Your task to perform on an android device: toggle notification dots Image 0: 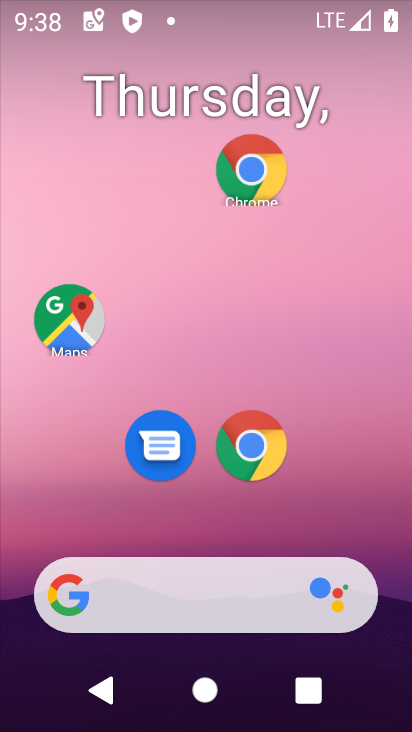
Step 0: drag from (201, 547) to (353, 432)
Your task to perform on an android device: toggle notification dots Image 1: 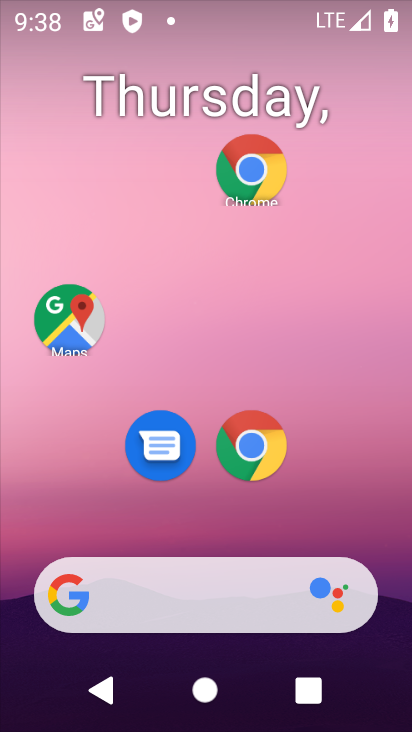
Step 1: drag from (219, 534) to (347, 31)
Your task to perform on an android device: toggle notification dots Image 2: 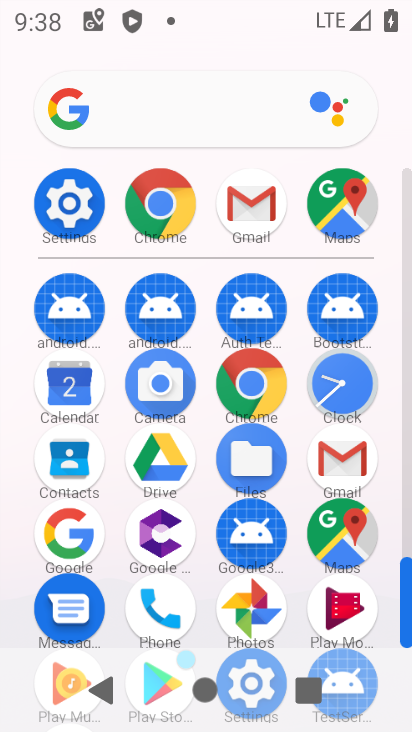
Step 2: click (54, 216)
Your task to perform on an android device: toggle notification dots Image 3: 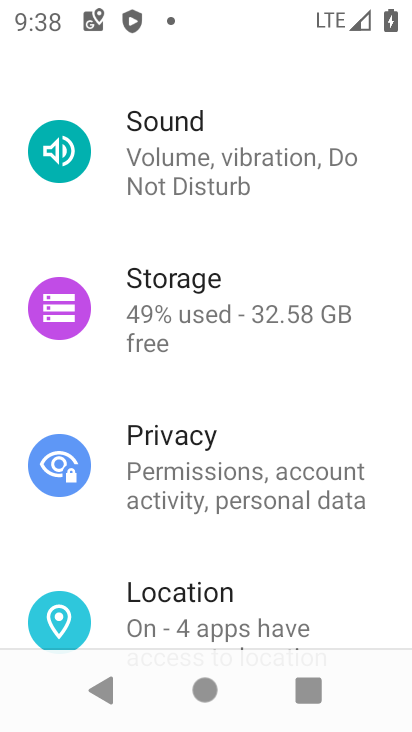
Step 3: drag from (203, 536) to (148, 76)
Your task to perform on an android device: toggle notification dots Image 4: 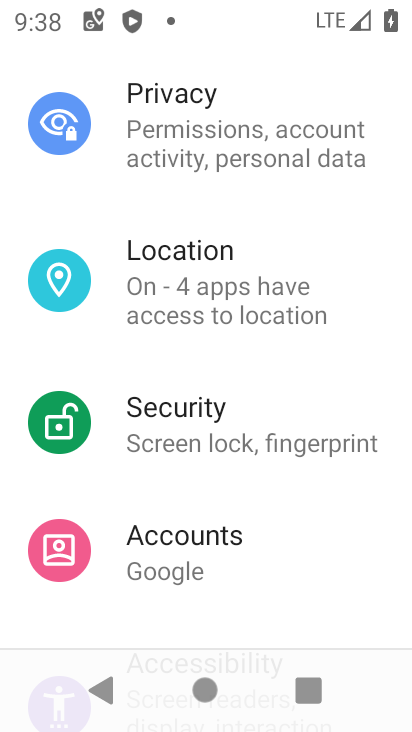
Step 4: drag from (225, 439) to (200, 12)
Your task to perform on an android device: toggle notification dots Image 5: 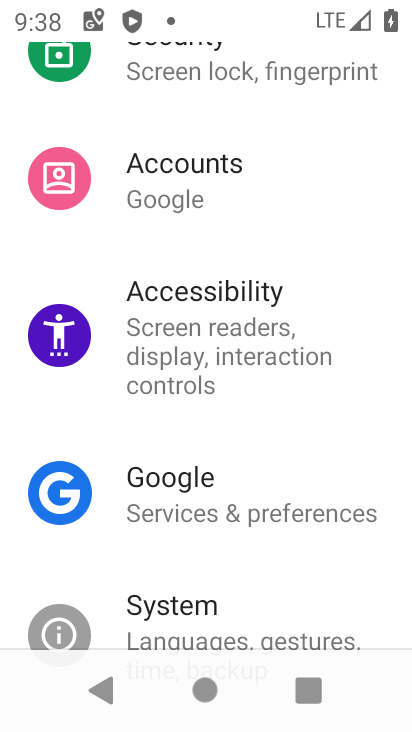
Step 5: drag from (218, 182) to (199, 35)
Your task to perform on an android device: toggle notification dots Image 6: 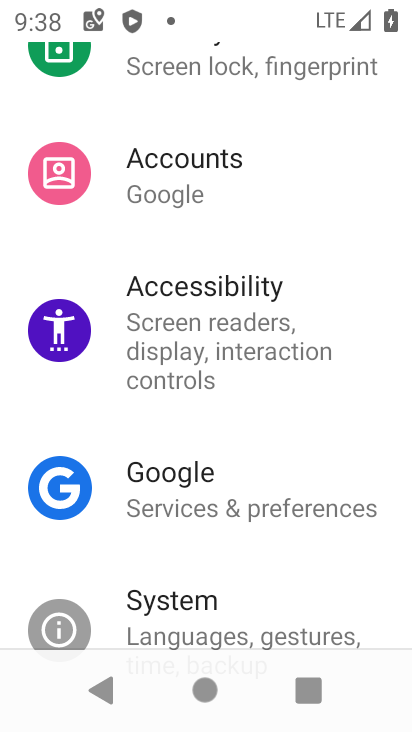
Step 6: drag from (214, 475) to (191, 4)
Your task to perform on an android device: toggle notification dots Image 7: 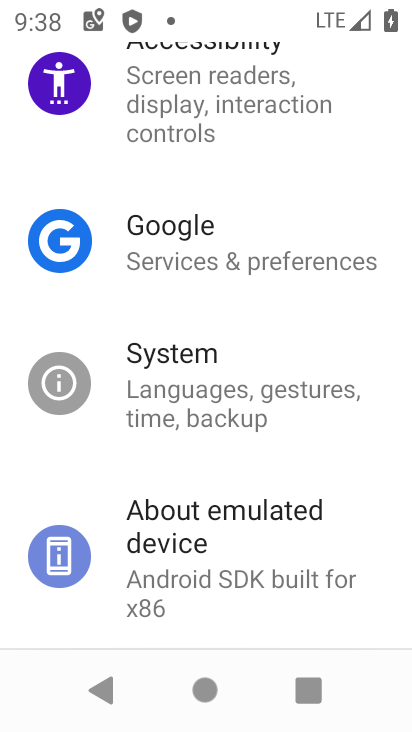
Step 7: drag from (210, 176) to (217, 700)
Your task to perform on an android device: toggle notification dots Image 8: 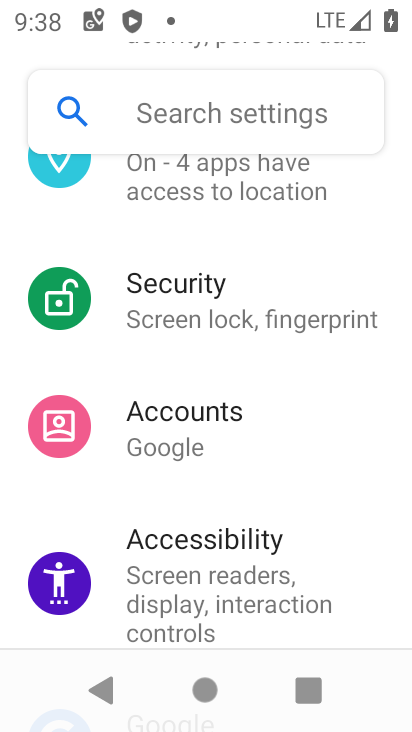
Step 8: drag from (223, 230) to (222, 728)
Your task to perform on an android device: toggle notification dots Image 9: 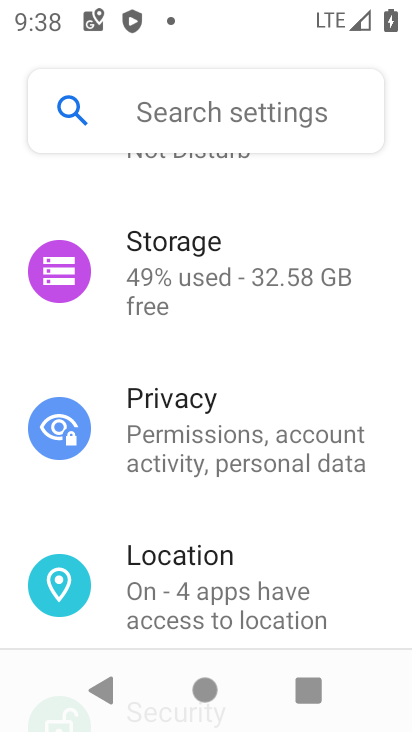
Step 9: drag from (194, 272) to (193, 708)
Your task to perform on an android device: toggle notification dots Image 10: 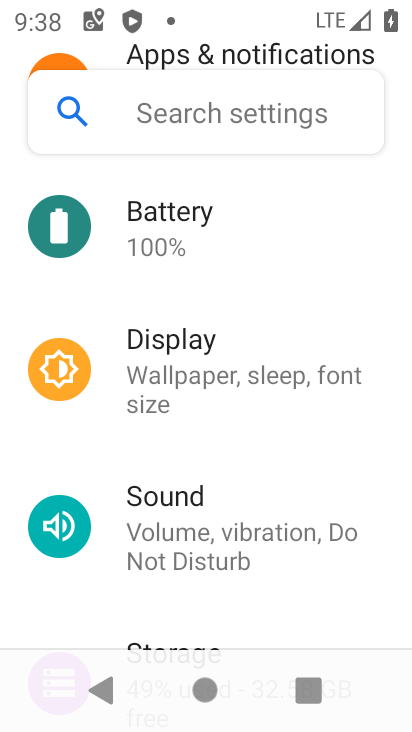
Step 10: drag from (225, 199) to (215, 606)
Your task to perform on an android device: toggle notification dots Image 11: 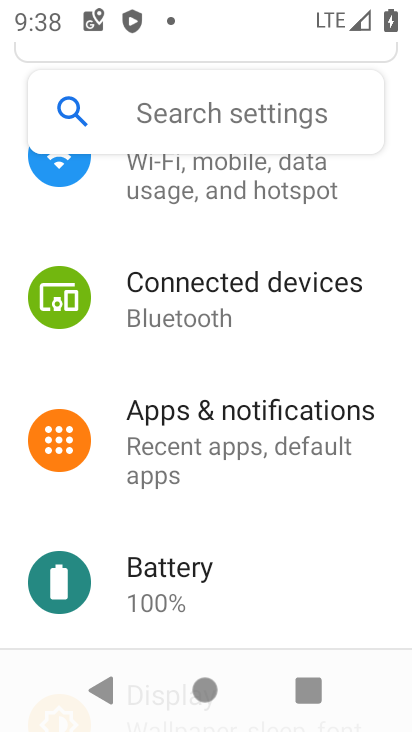
Step 11: click (233, 419)
Your task to perform on an android device: toggle notification dots Image 12: 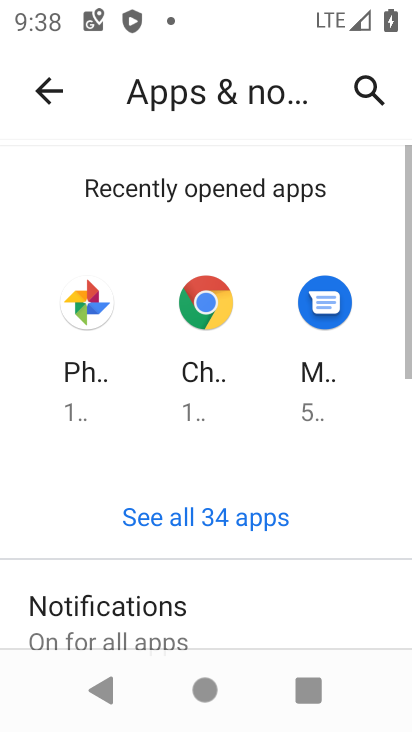
Step 12: click (183, 592)
Your task to perform on an android device: toggle notification dots Image 13: 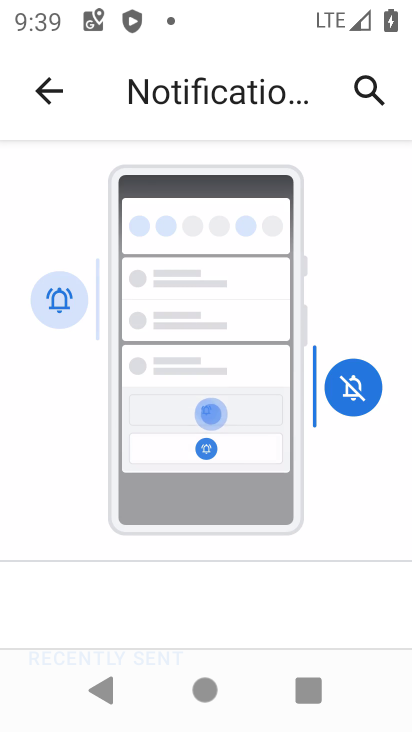
Step 13: drag from (219, 557) to (330, 4)
Your task to perform on an android device: toggle notification dots Image 14: 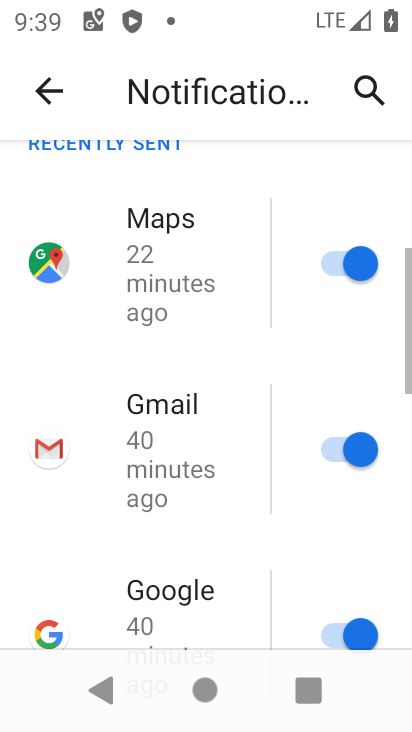
Step 14: drag from (139, 541) to (122, 107)
Your task to perform on an android device: toggle notification dots Image 15: 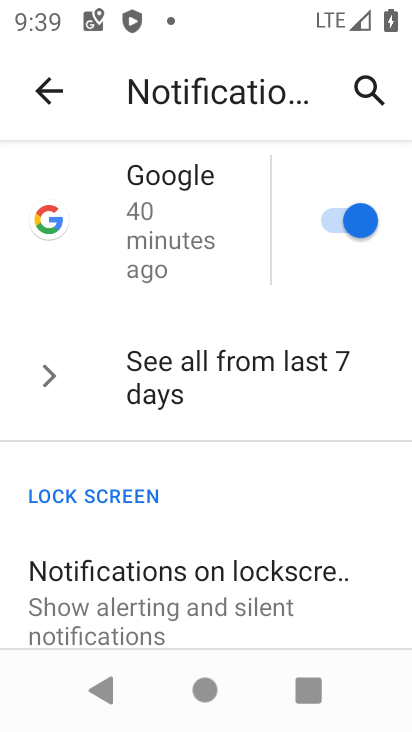
Step 15: drag from (224, 560) to (181, 33)
Your task to perform on an android device: toggle notification dots Image 16: 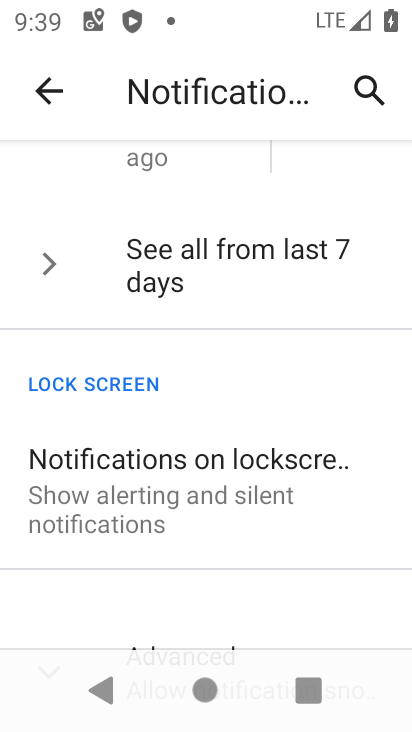
Step 16: drag from (214, 519) to (210, 71)
Your task to perform on an android device: toggle notification dots Image 17: 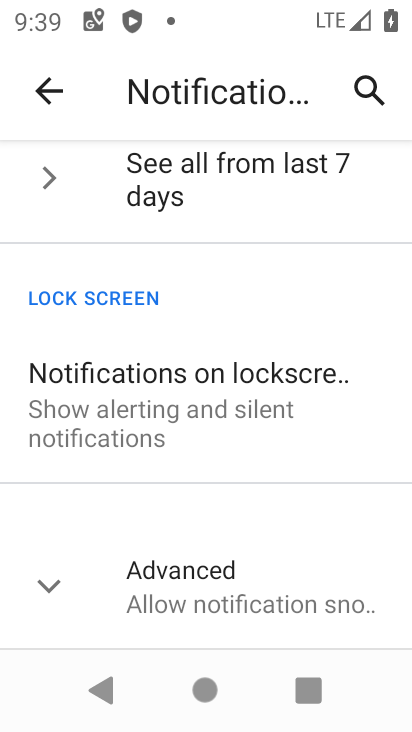
Step 17: click (206, 595)
Your task to perform on an android device: toggle notification dots Image 18: 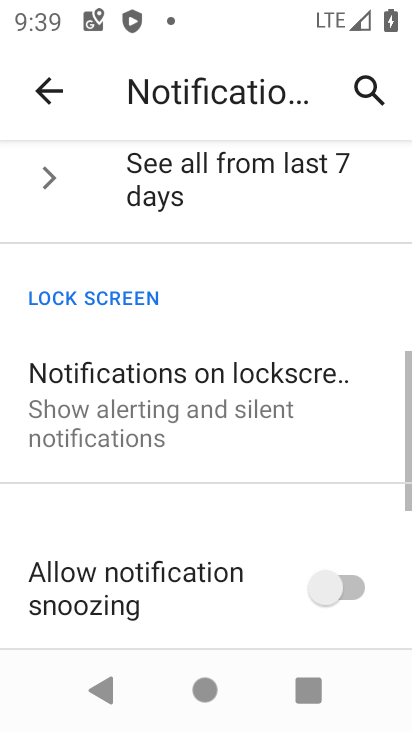
Step 18: drag from (206, 595) to (202, 179)
Your task to perform on an android device: toggle notification dots Image 19: 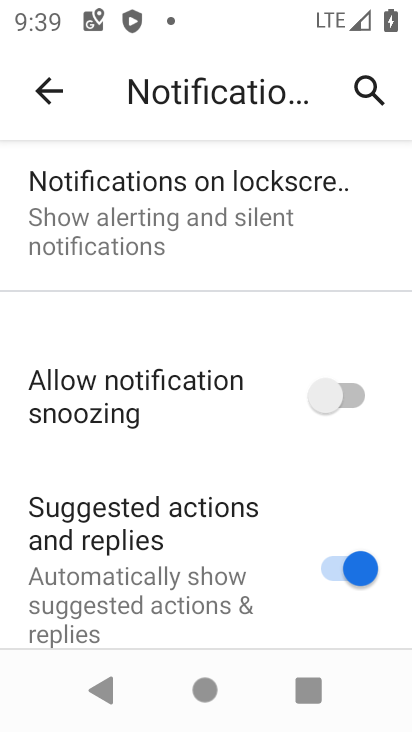
Step 19: drag from (275, 583) to (269, 150)
Your task to perform on an android device: toggle notification dots Image 20: 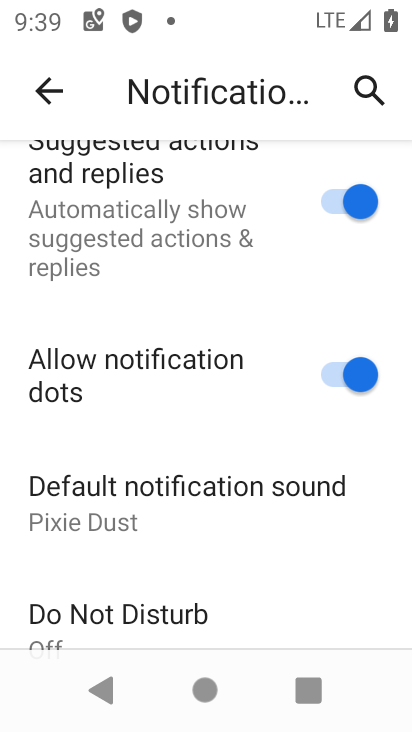
Step 20: click (341, 382)
Your task to perform on an android device: toggle notification dots Image 21: 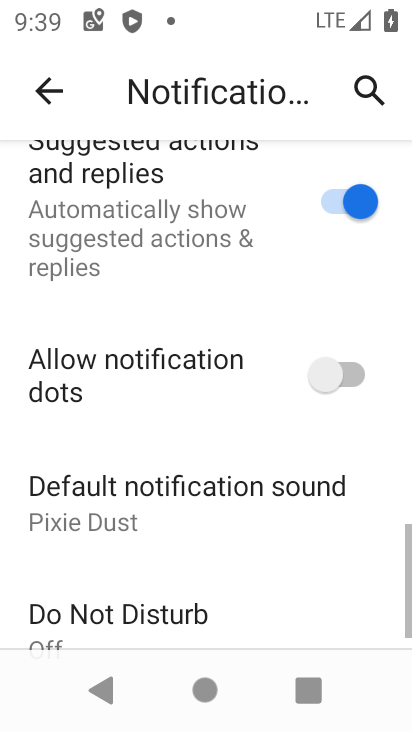
Step 21: task complete